Your task to perform on an android device: install app "McDonald's" Image 0: 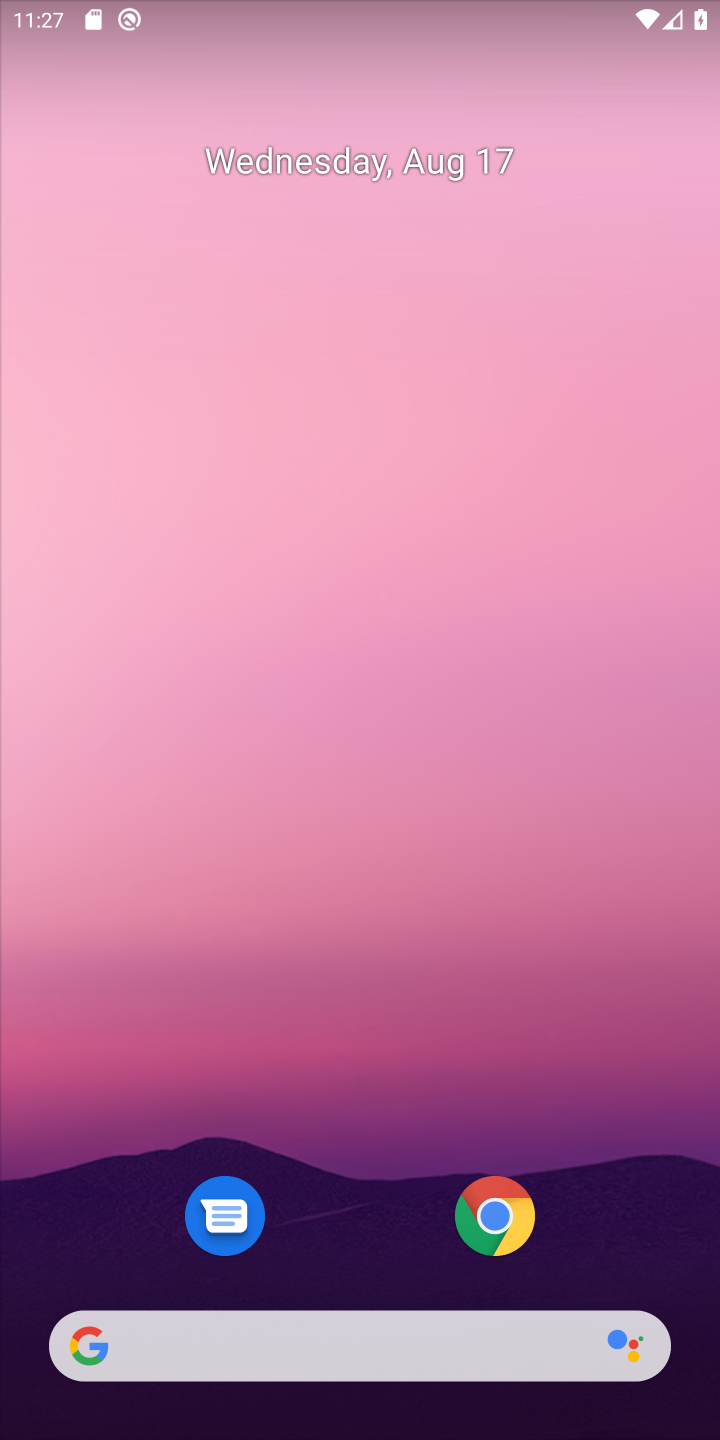
Step 0: drag from (557, 1105) to (419, 24)
Your task to perform on an android device: install app "McDonald's" Image 1: 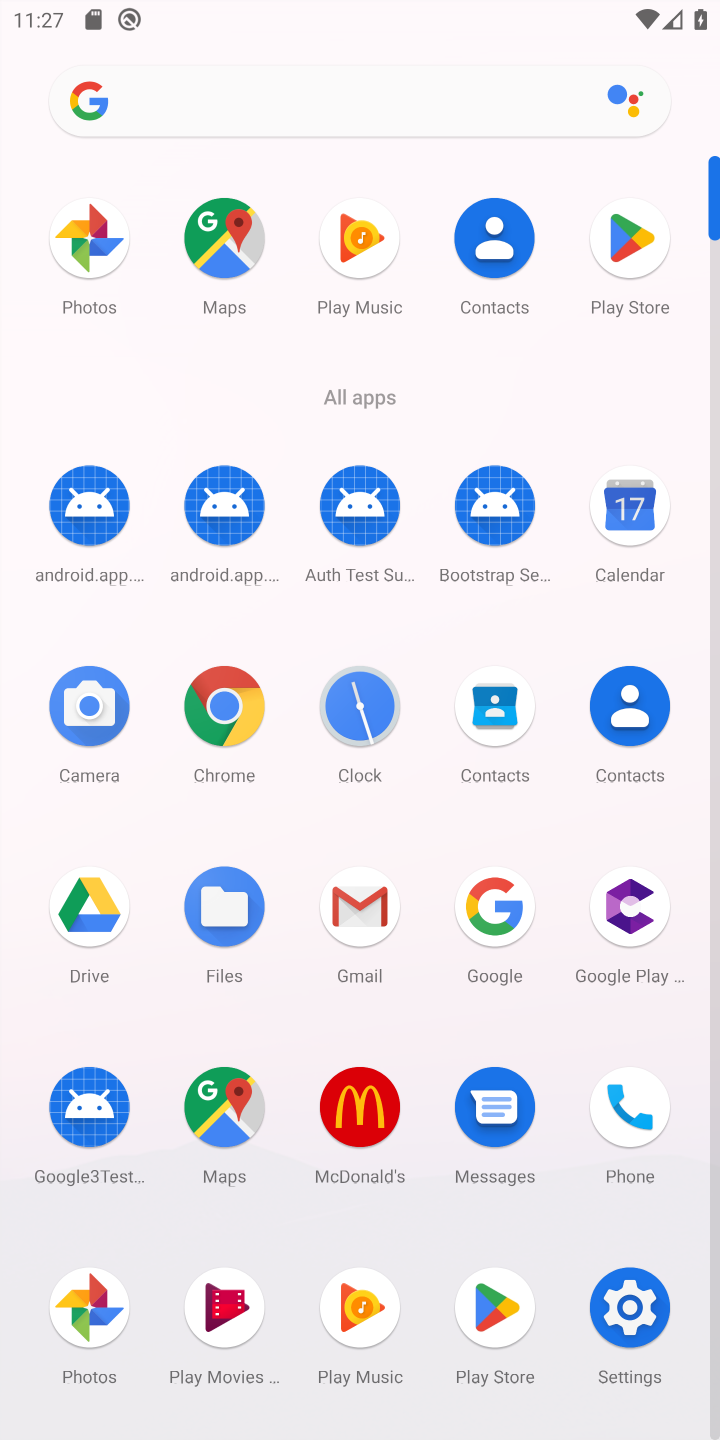
Step 1: click (649, 228)
Your task to perform on an android device: install app "McDonald's" Image 2: 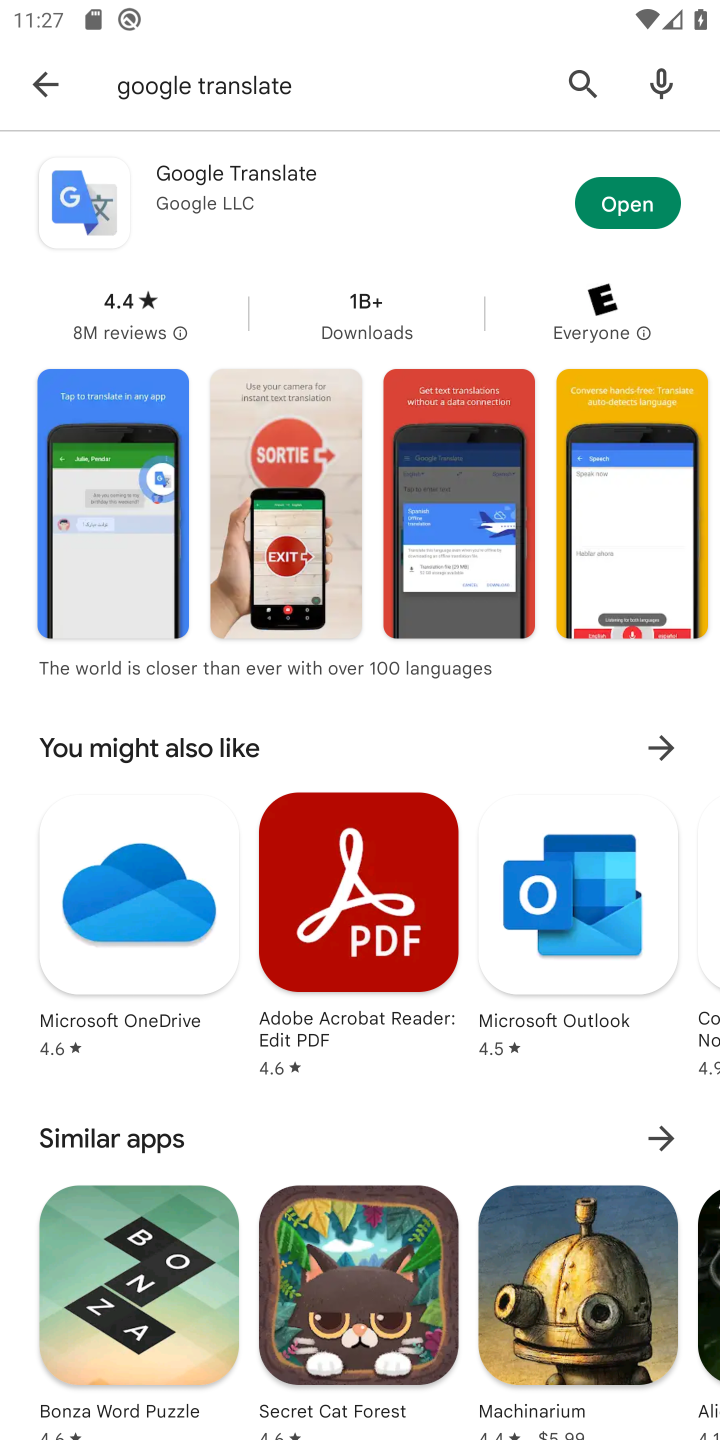
Step 2: click (594, 81)
Your task to perform on an android device: install app "McDonald's" Image 3: 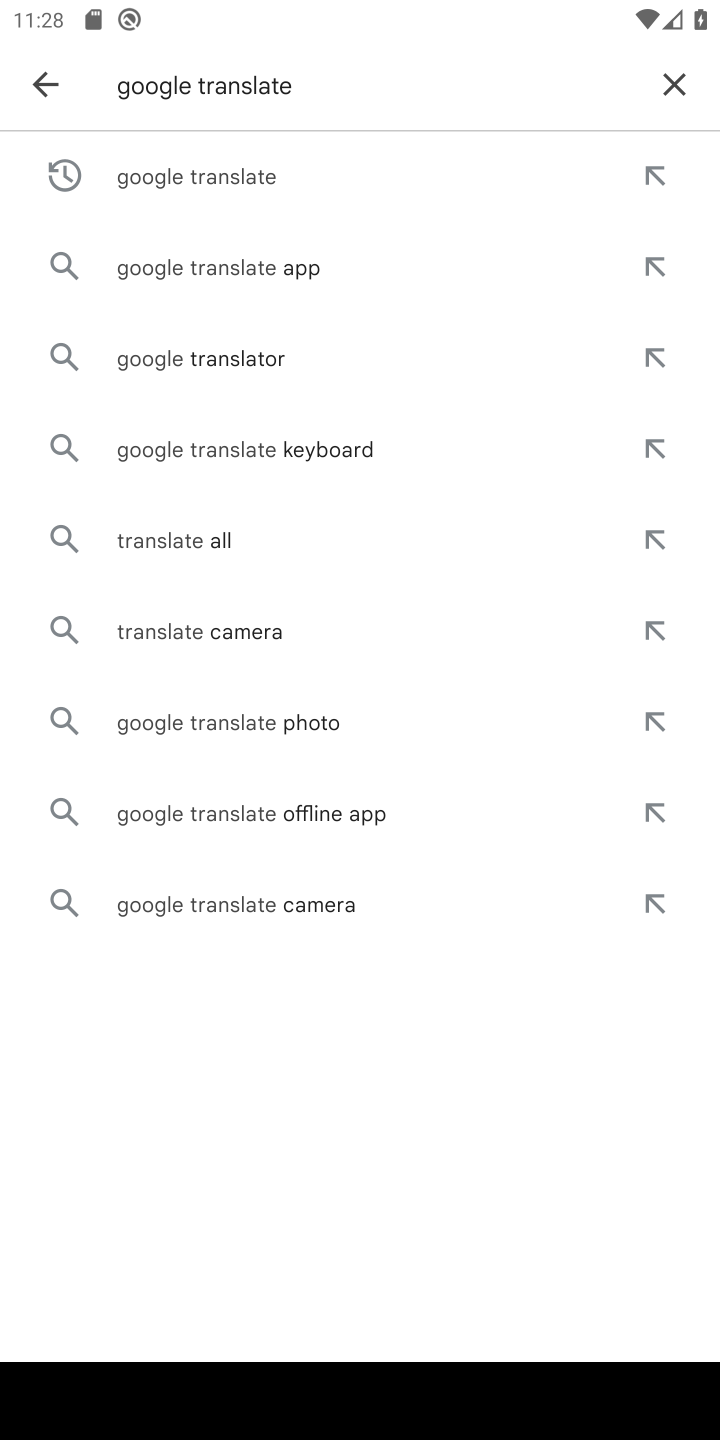
Step 3: click (687, 85)
Your task to perform on an android device: install app "McDonald's" Image 4: 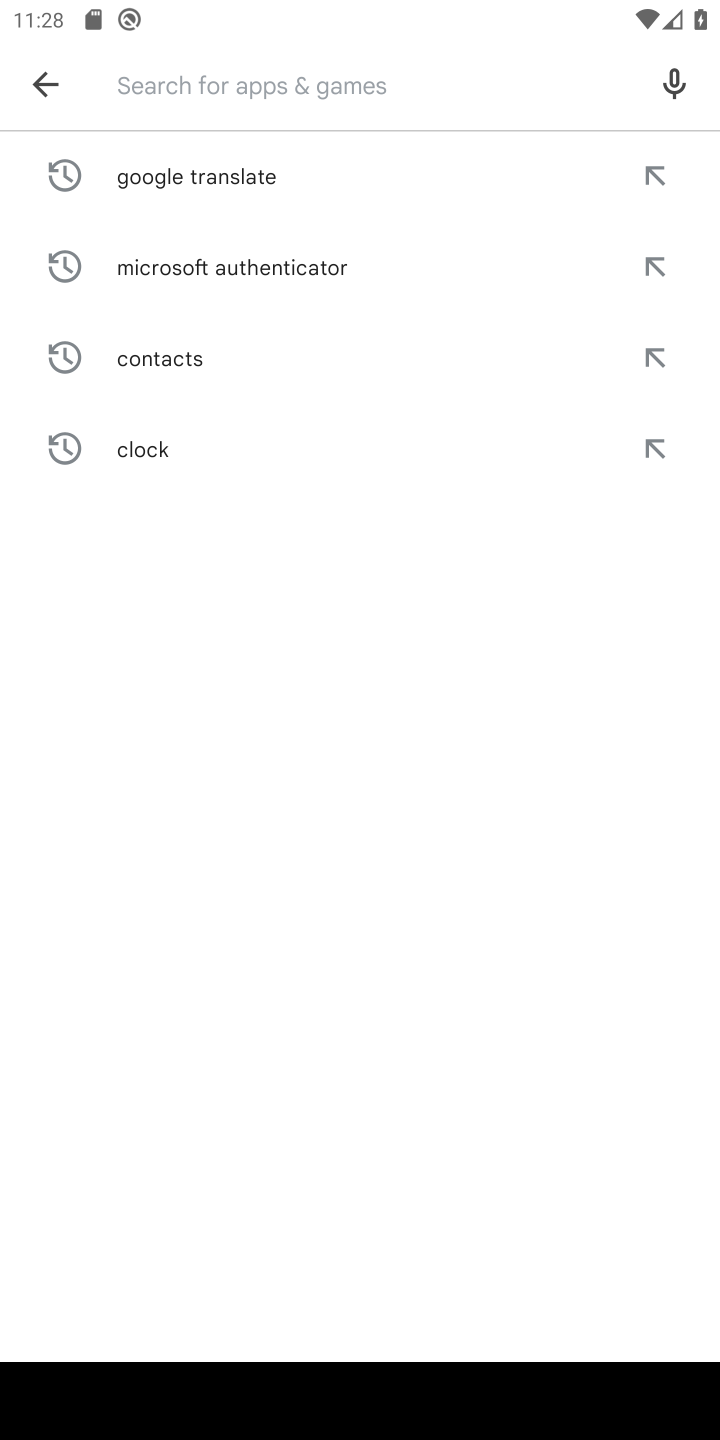
Step 4: type "mcdonalds"
Your task to perform on an android device: install app "McDonald's" Image 5: 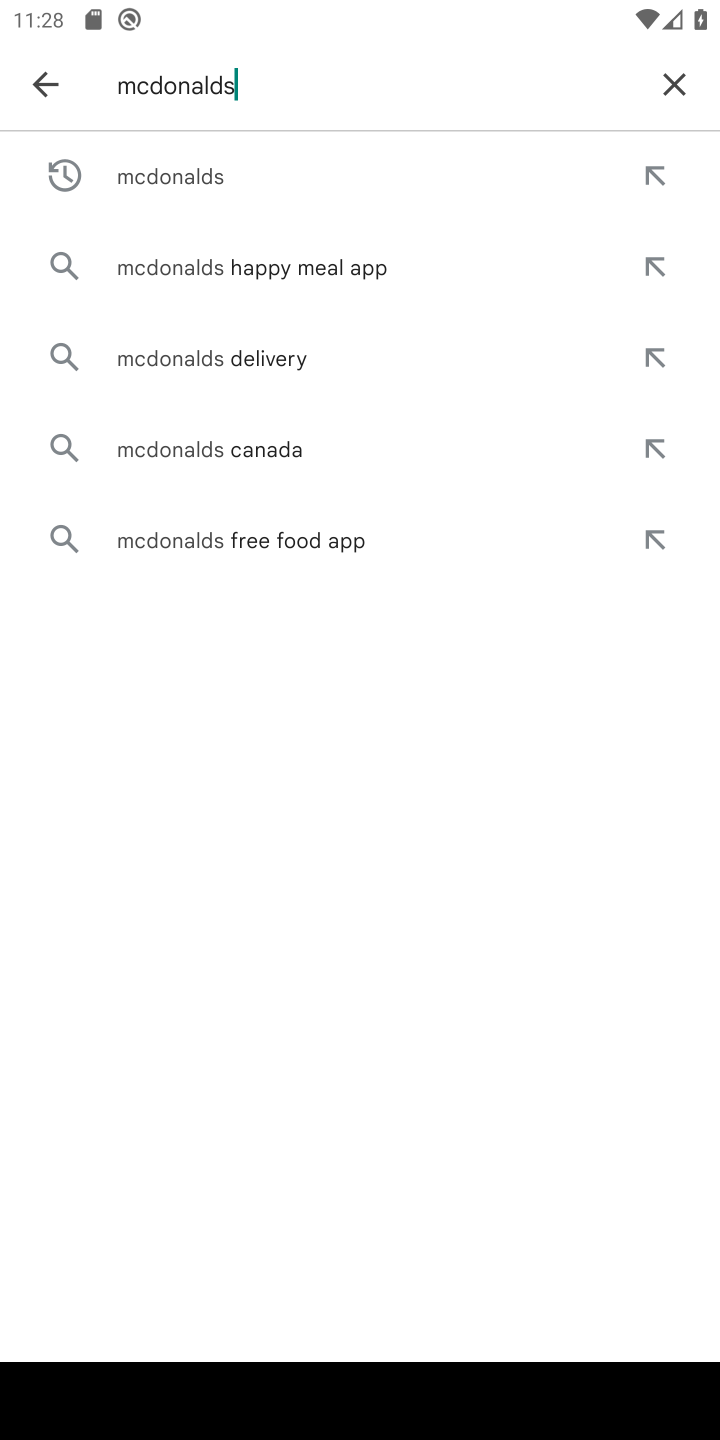
Step 5: click (225, 175)
Your task to perform on an android device: install app "McDonald's" Image 6: 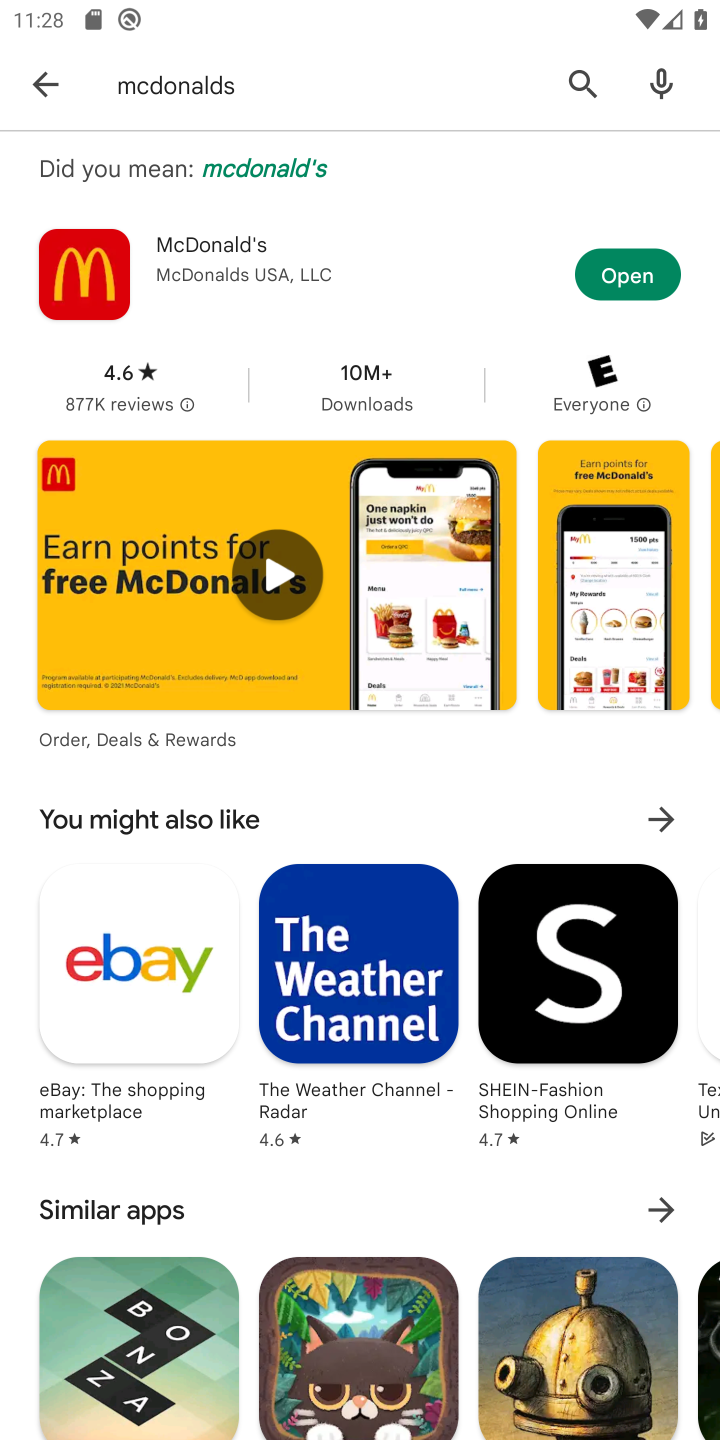
Step 6: task complete